Your task to perform on an android device: check data usage Image 0: 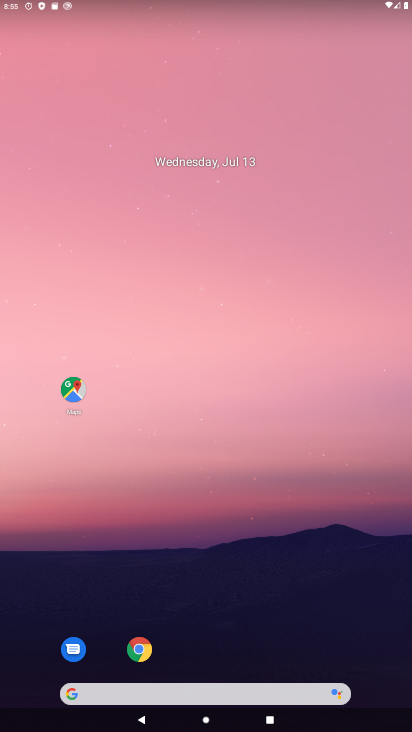
Step 0: drag from (208, 566) to (237, 0)
Your task to perform on an android device: check data usage Image 1: 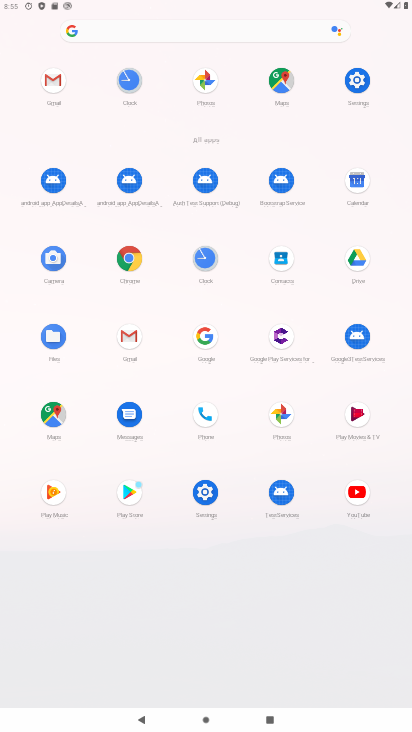
Step 1: click (361, 77)
Your task to perform on an android device: check data usage Image 2: 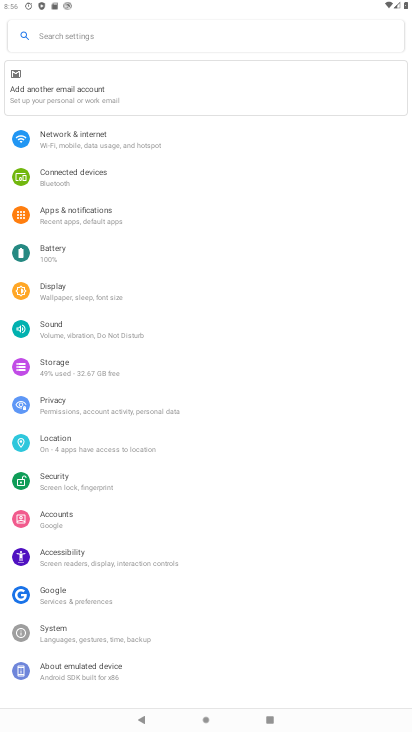
Step 2: click (87, 138)
Your task to perform on an android device: check data usage Image 3: 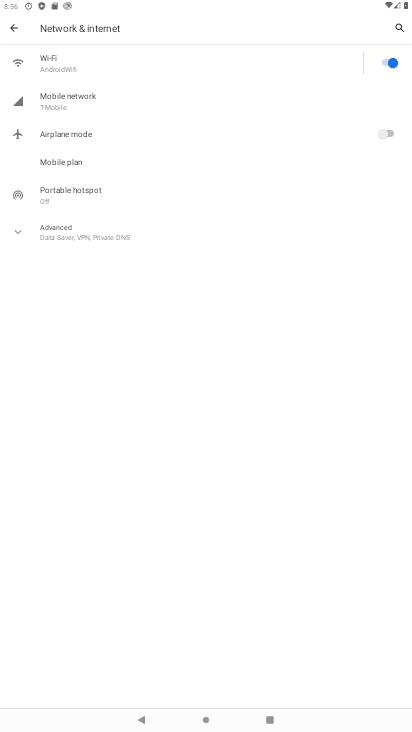
Step 3: click (81, 104)
Your task to perform on an android device: check data usage Image 4: 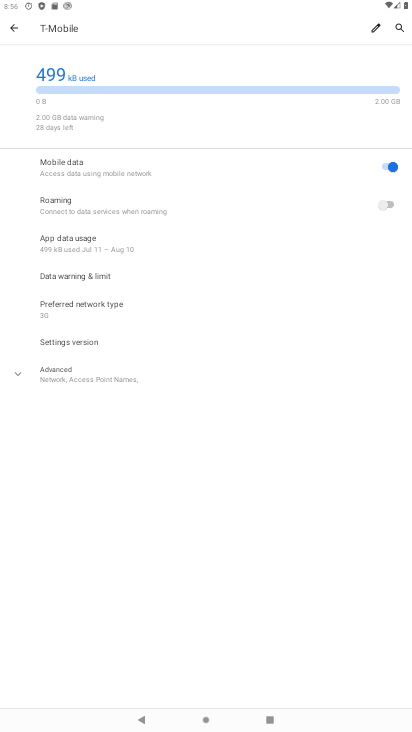
Step 4: task complete